Your task to perform on an android device: Go to battery settings Image 0: 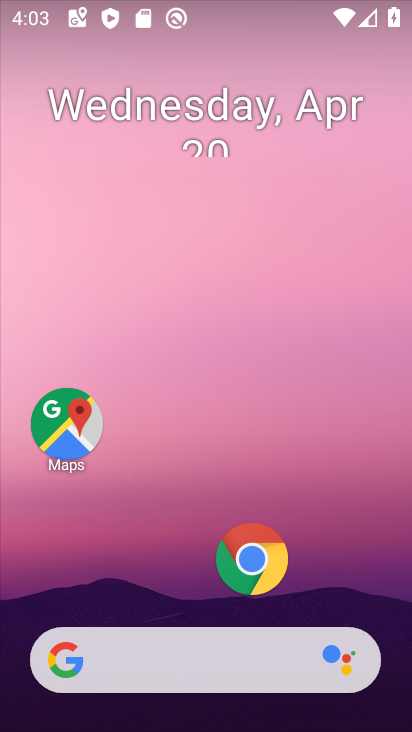
Step 0: drag from (210, 563) to (202, 245)
Your task to perform on an android device: Go to battery settings Image 1: 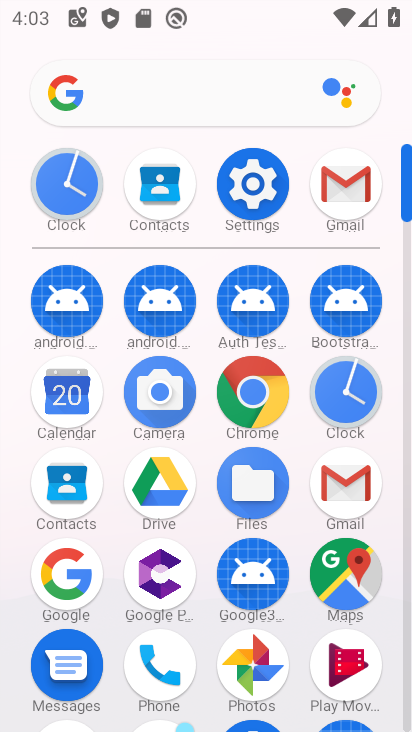
Step 1: click (248, 185)
Your task to perform on an android device: Go to battery settings Image 2: 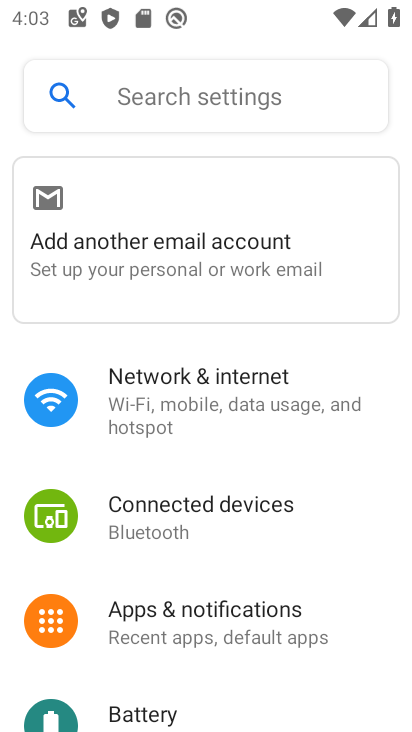
Step 2: drag from (199, 540) to (227, 306)
Your task to perform on an android device: Go to battery settings Image 3: 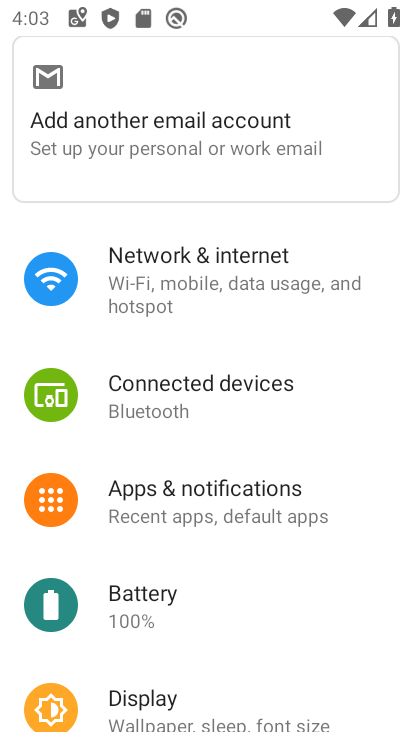
Step 3: click (144, 617)
Your task to perform on an android device: Go to battery settings Image 4: 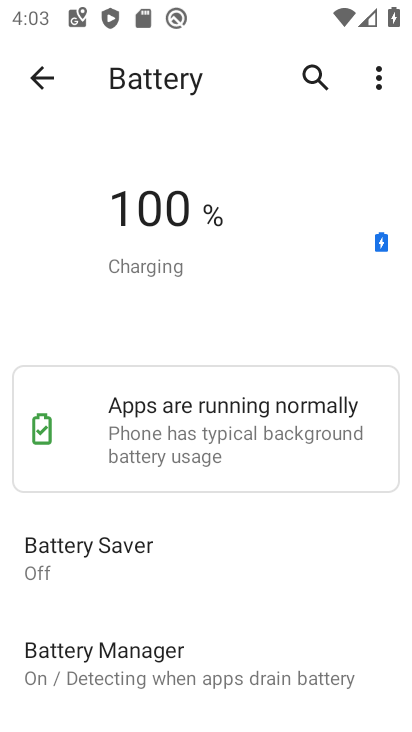
Step 4: task complete